Your task to perform on an android device: Go to Amazon Image 0: 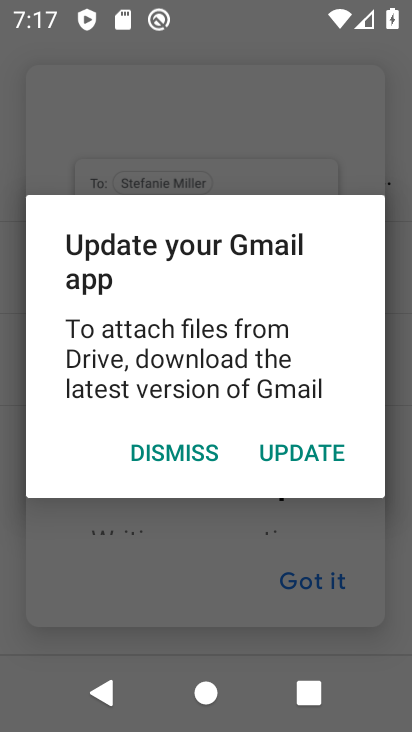
Step 0: press home button
Your task to perform on an android device: Go to Amazon Image 1: 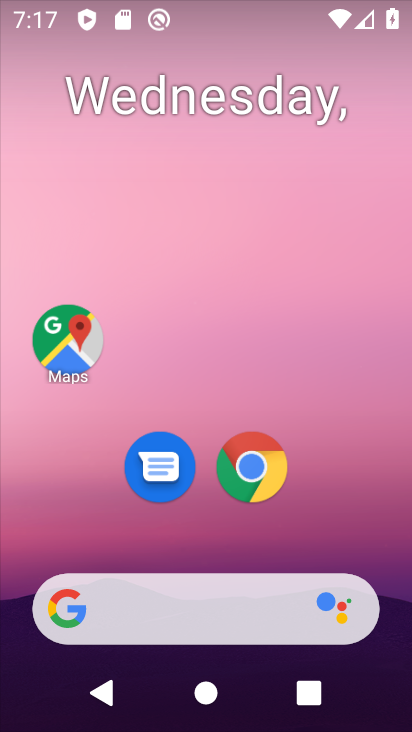
Step 1: click (263, 450)
Your task to perform on an android device: Go to Amazon Image 2: 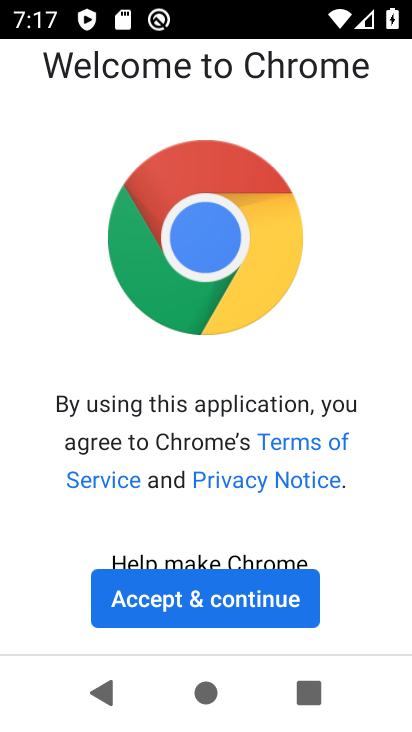
Step 2: click (243, 590)
Your task to perform on an android device: Go to Amazon Image 3: 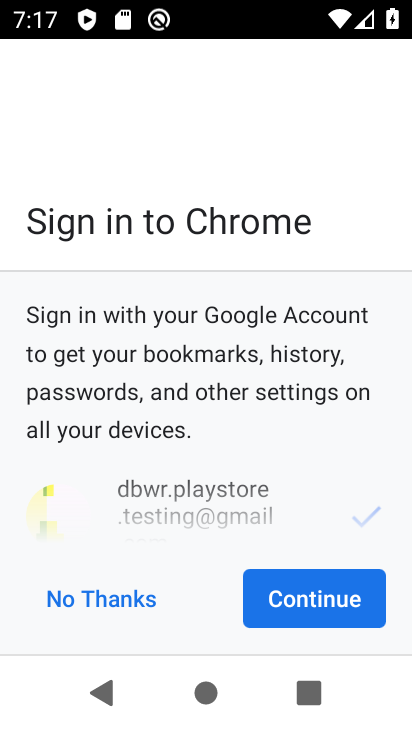
Step 3: click (284, 594)
Your task to perform on an android device: Go to Amazon Image 4: 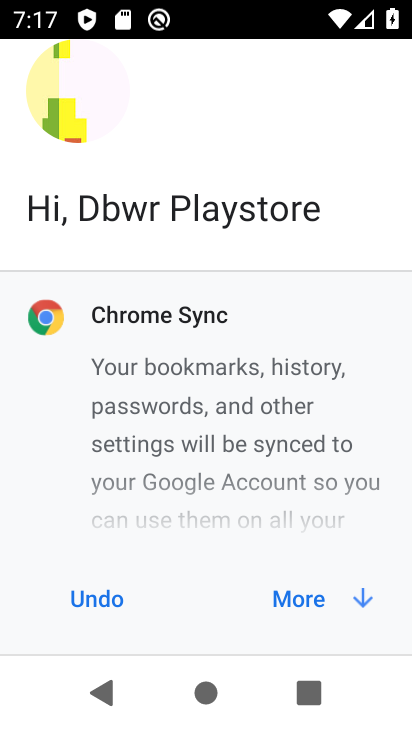
Step 4: click (284, 594)
Your task to perform on an android device: Go to Amazon Image 5: 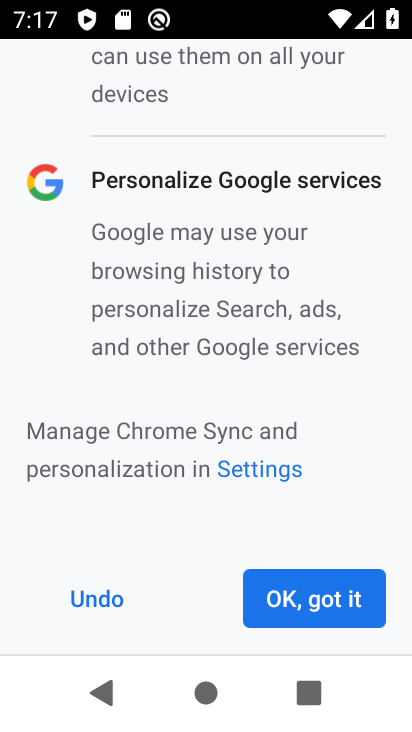
Step 5: click (284, 594)
Your task to perform on an android device: Go to Amazon Image 6: 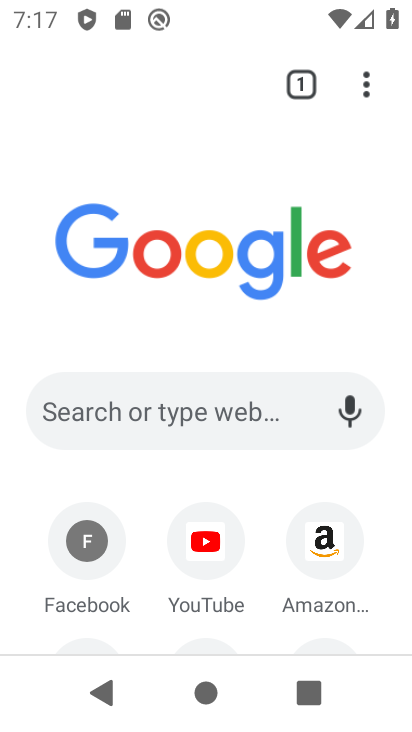
Step 6: click (189, 413)
Your task to perform on an android device: Go to Amazon Image 7: 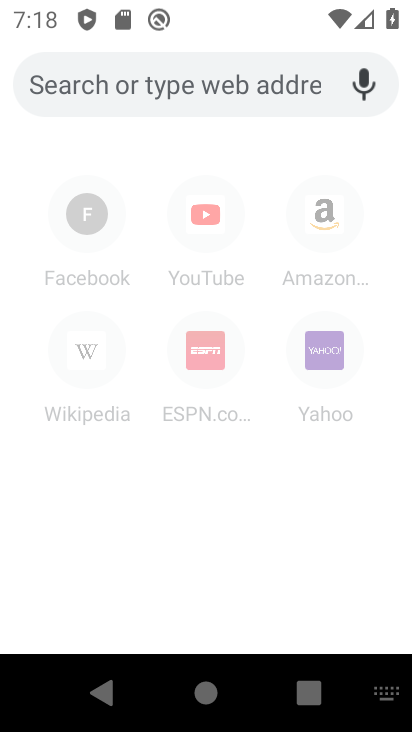
Step 7: type "Amazon"
Your task to perform on an android device: Go to Amazon Image 8: 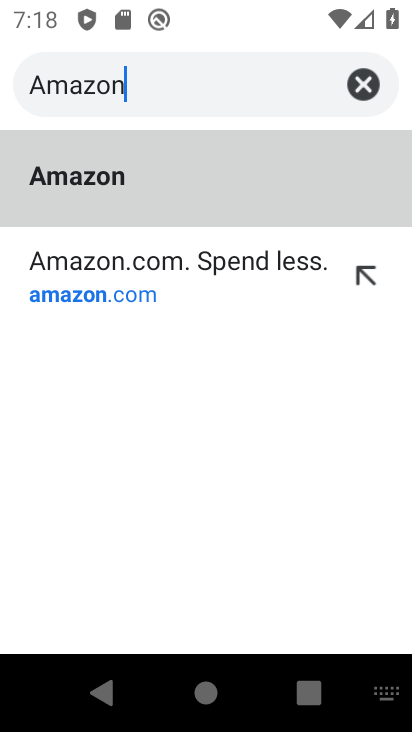
Step 8: click (57, 265)
Your task to perform on an android device: Go to Amazon Image 9: 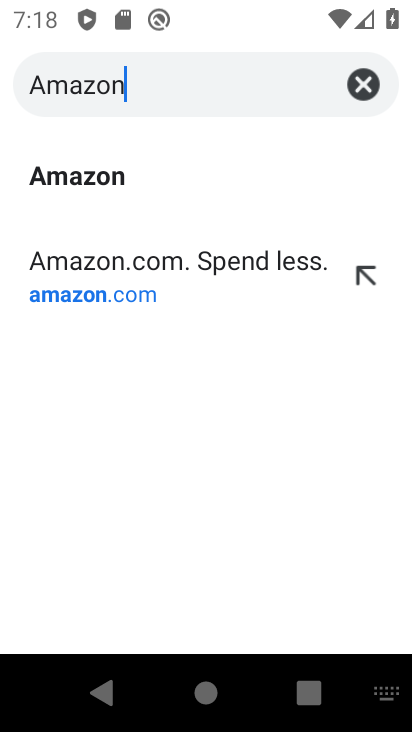
Step 9: click (87, 280)
Your task to perform on an android device: Go to Amazon Image 10: 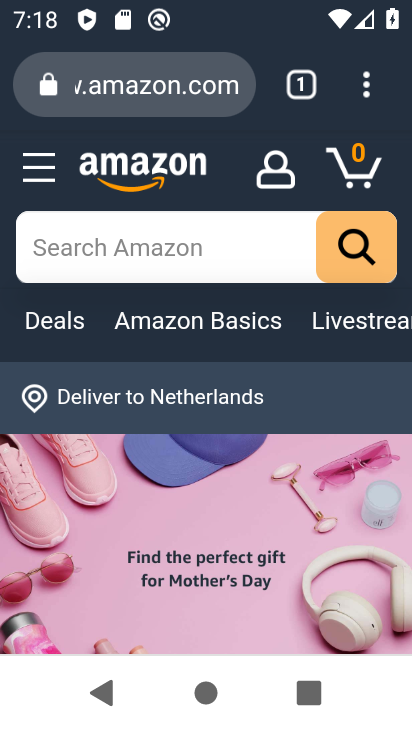
Step 10: task complete